Your task to perform on an android device: uninstall "Spotify" Image 0: 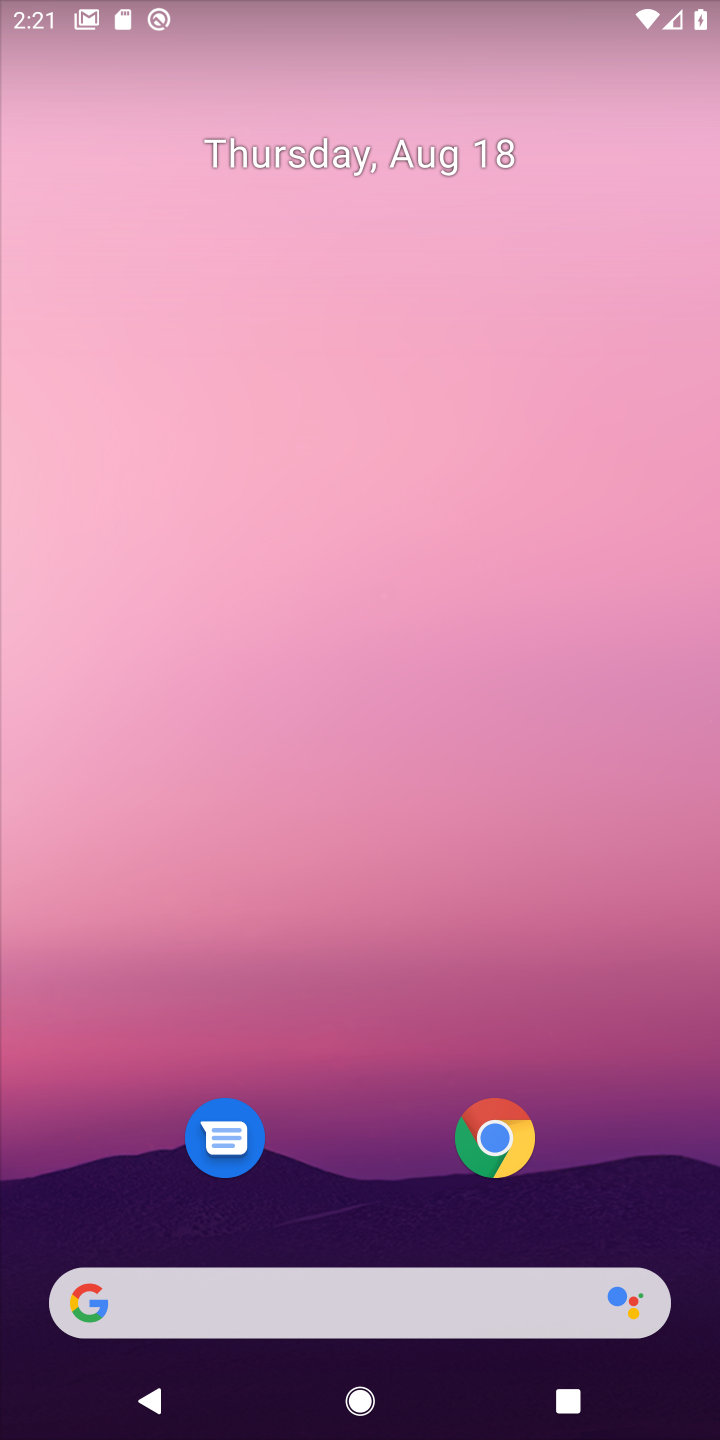
Step 0: drag from (342, 1302) to (406, 99)
Your task to perform on an android device: uninstall "Spotify" Image 1: 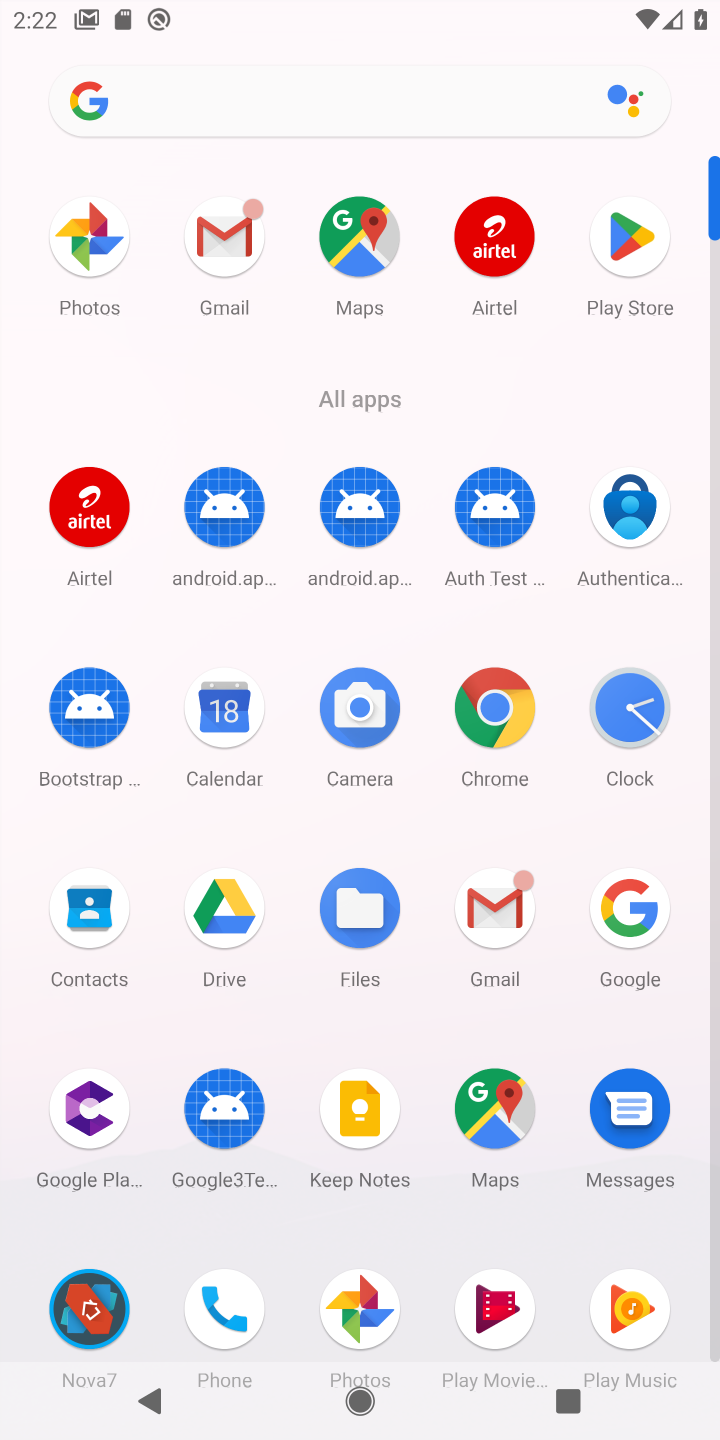
Step 1: task complete